Your task to perform on an android device: uninstall "Microsoft Authenticator" Image 0: 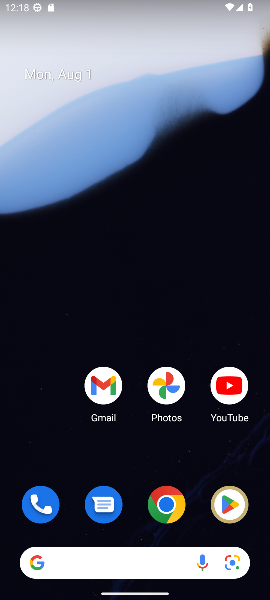
Step 0: drag from (110, 547) to (218, 8)
Your task to perform on an android device: uninstall "Microsoft Authenticator" Image 1: 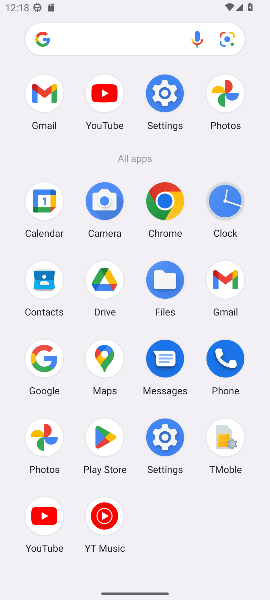
Step 1: click (108, 436)
Your task to perform on an android device: uninstall "Microsoft Authenticator" Image 2: 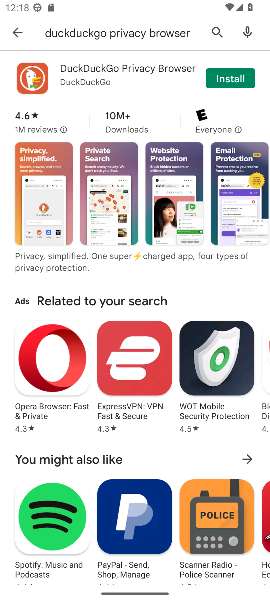
Step 2: click (217, 35)
Your task to perform on an android device: uninstall "Microsoft Authenticator" Image 3: 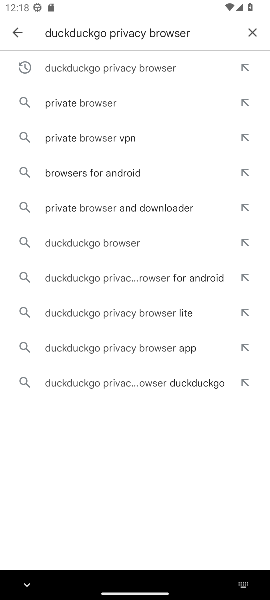
Step 3: click (251, 31)
Your task to perform on an android device: uninstall "Microsoft Authenticator" Image 4: 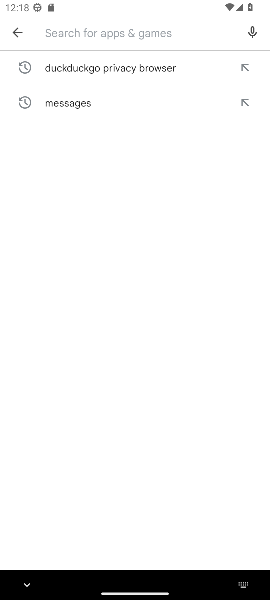
Step 4: type "microsoft authenticator"
Your task to perform on an android device: uninstall "Microsoft Authenticator" Image 5: 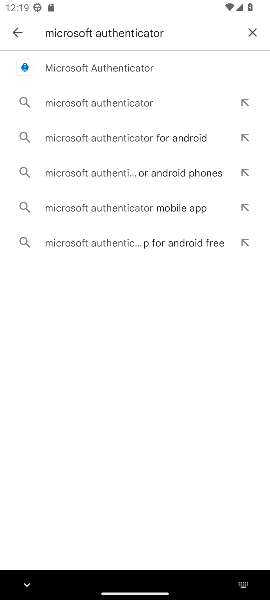
Step 5: click (98, 67)
Your task to perform on an android device: uninstall "Microsoft Authenticator" Image 6: 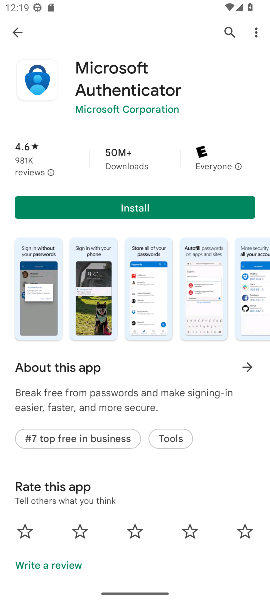
Step 6: task complete